Your task to perform on an android device: Open Reddit.com Image 0: 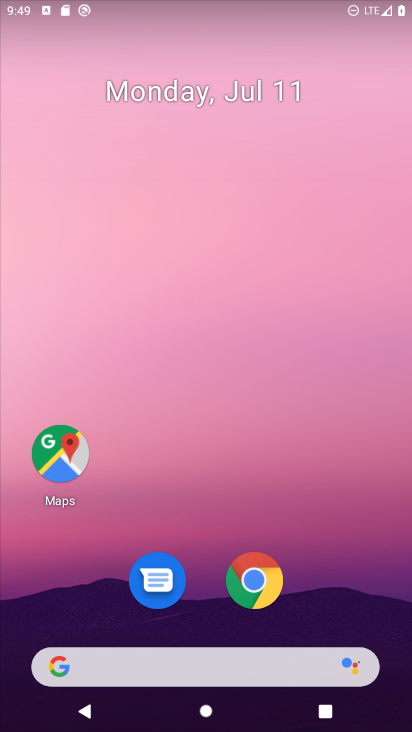
Step 0: click (282, 669)
Your task to perform on an android device: Open Reddit.com Image 1: 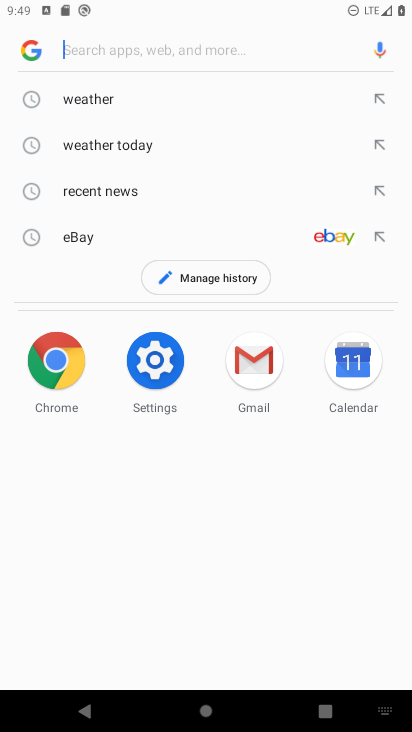
Step 1: type "reddit.com"
Your task to perform on an android device: Open Reddit.com Image 2: 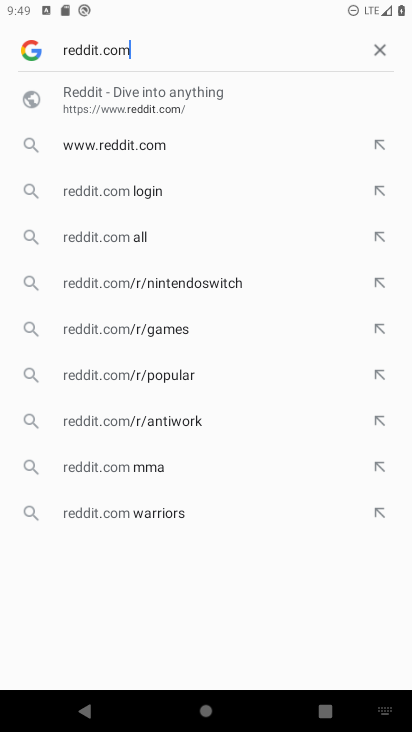
Step 2: click (147, 94)
Your task to perform on an android device: Open Reddit.com Image 3: 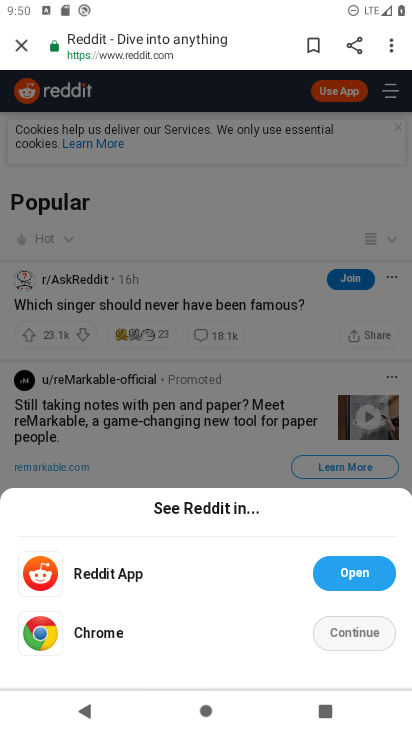
Step 3: click (353, 630)
Your task to perform on an android device: Open Reddit.com Image 4: 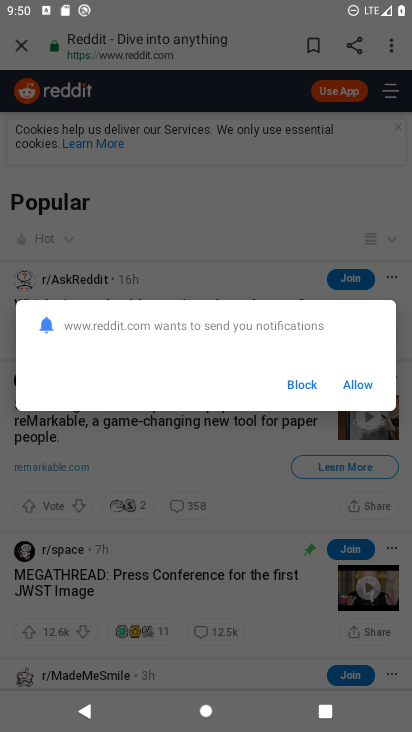
Step 4: click (300, 377)
Your task to perform on an android device: Open Reddit.com Image 5: 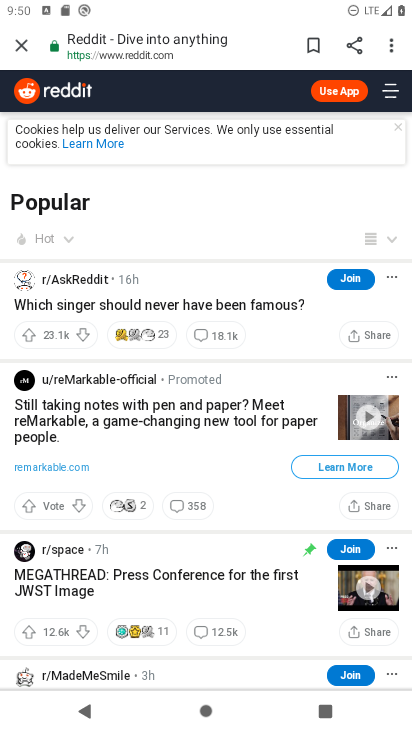
Step 5: task complete